Your task to perform on an android device: check out phone information Image 0: 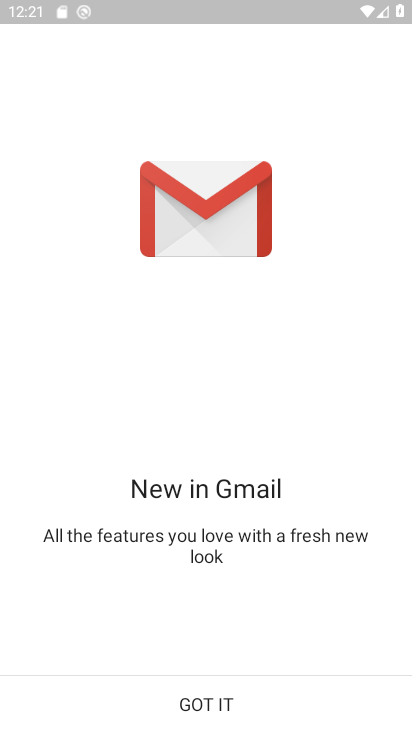
Step 0: press home button
Your task to perform on an android device: check out phone information Image 1: 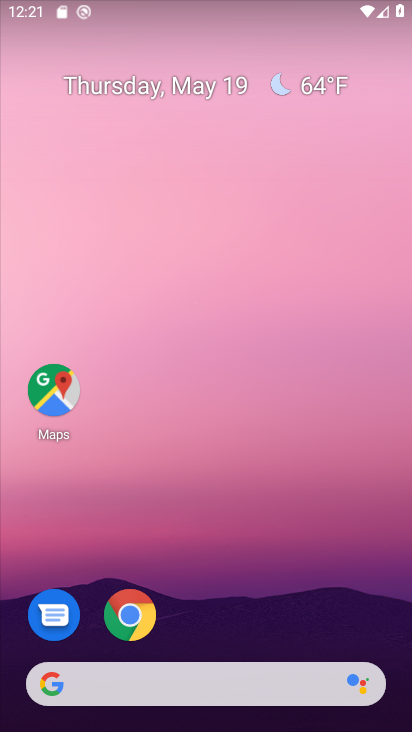
Step 1: drag from (236, 712) to (237, 232)
Your task to perform on an android device: check out phone information Image 2: 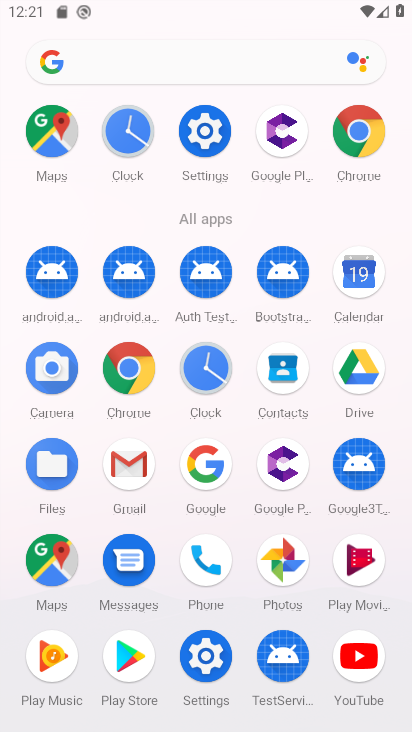
Step 2: click (192, 152)
Your task to perform on an android device: check out phone information Image 3: 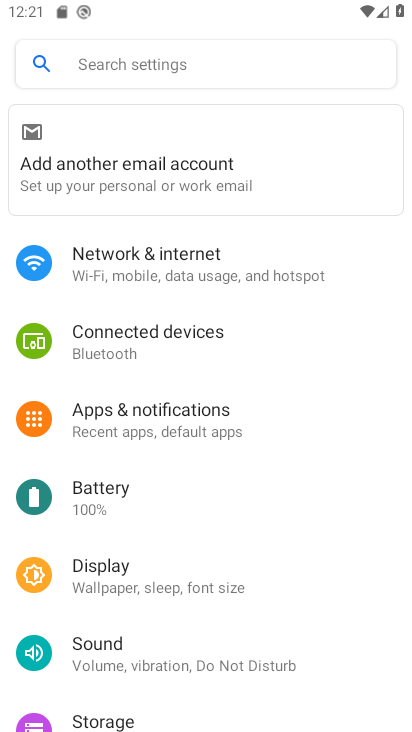
Step 3: click (141, 66)
Your task to perform on an android device: check out phone information Image 4: 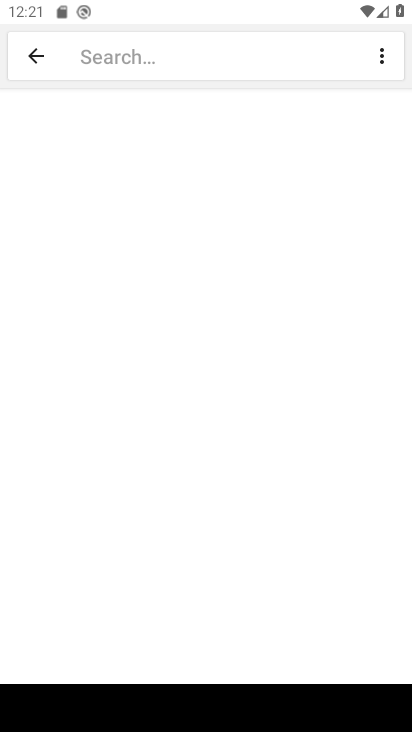
Step 4: drag from (364, 696) to (350, 504)
Your task to perform on an android device: check out phone information Image 5: 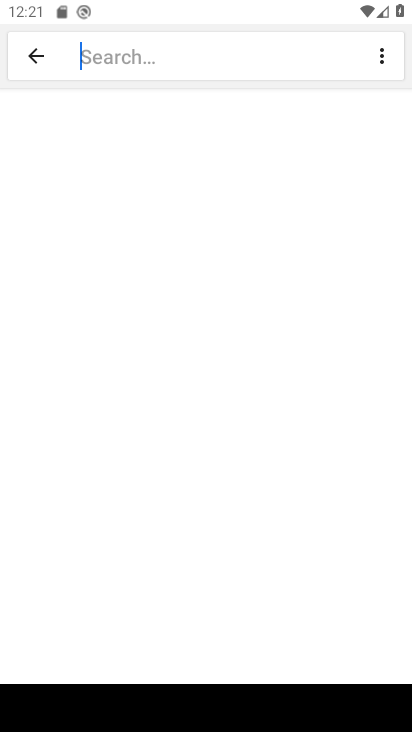
Step 5: click (375, 705)
Your task to perform on an android device: check out phone information Image 6: 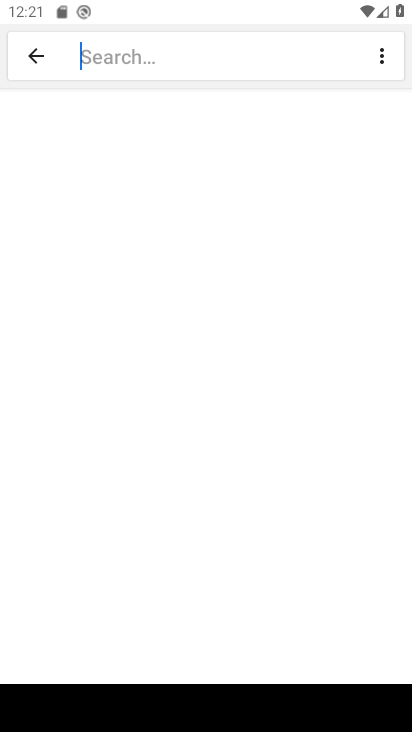
Step 6: drag from (375, 702) to (333, 533)
Your task to perform on an android device: check out phone information Image 7: 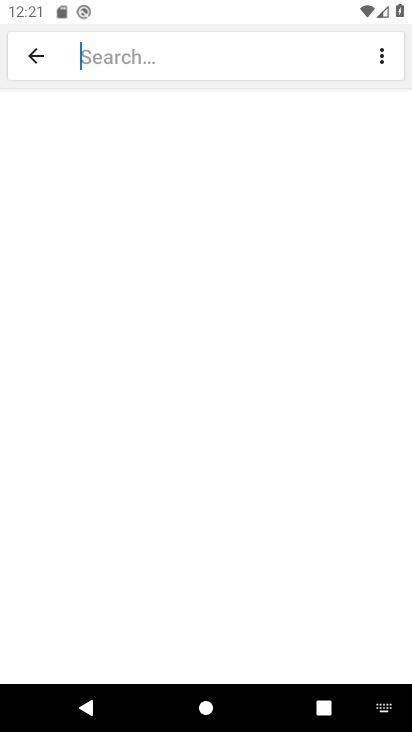
Step 7: click (381, 711)
Your task to perform on an android device: check out phone information Image 8: 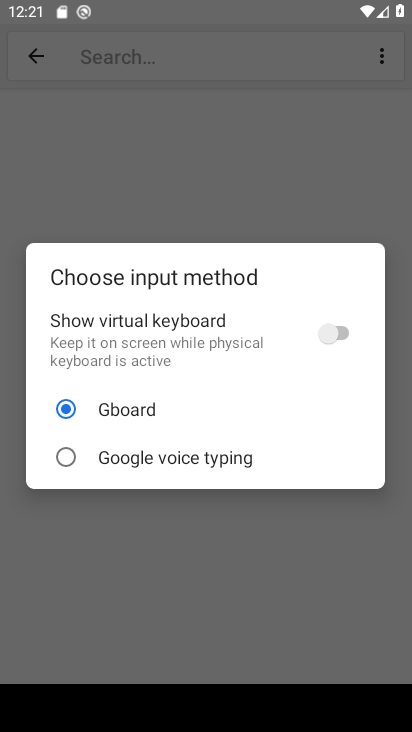
Step 8: click (335, 324)
Your task to perform on an android device: check out phone information Image 9: 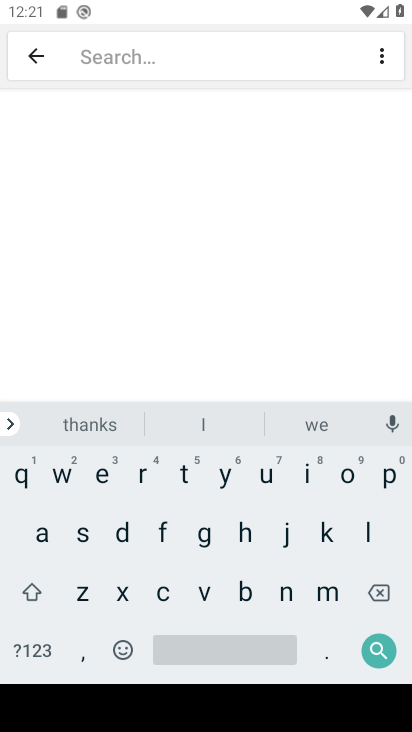
Step 9: click (47, 521)
Your task to perform on an android device: check out phone information Image 10: 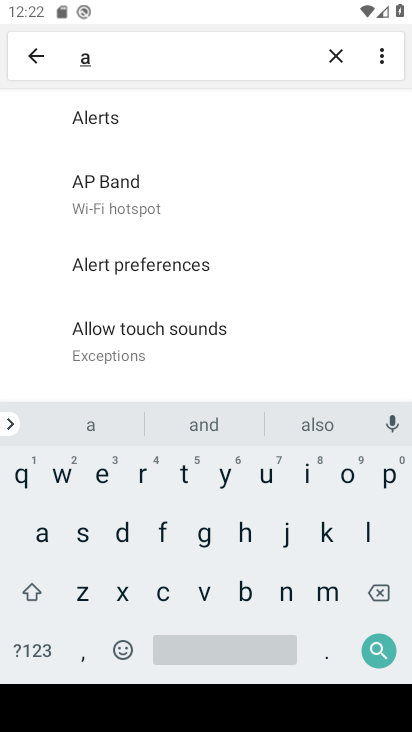
Step 10: click (244, 596)
Your task to perform on an android device: check out phone information Image 11: 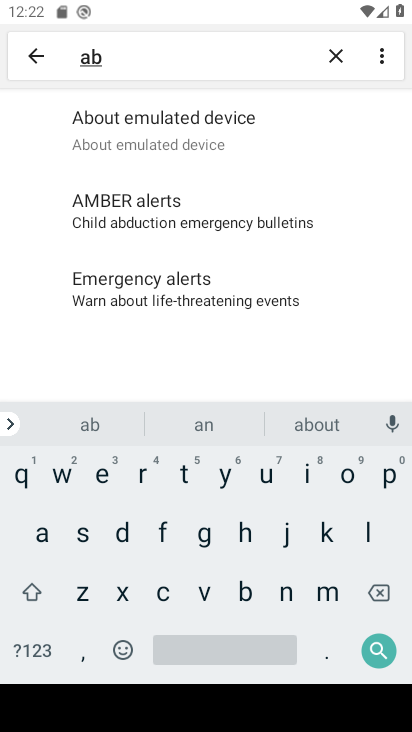
Step 11: click (178, 142)
Your task to perform on an android device: check out phone information Image 12: 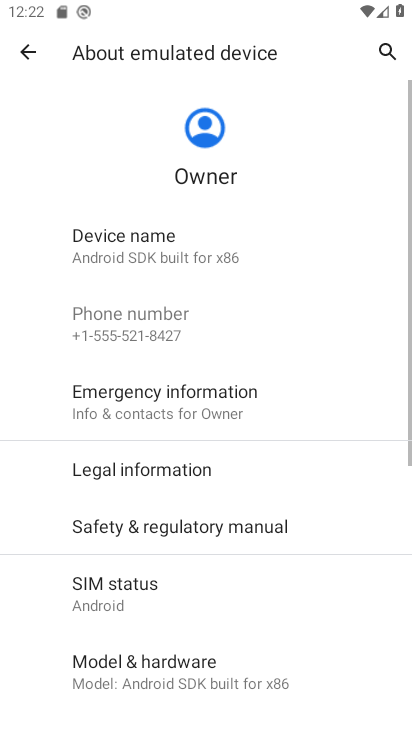
Step 12: task complete